Your task to perform on an android device: snooze an email in the gmail app Image 0: 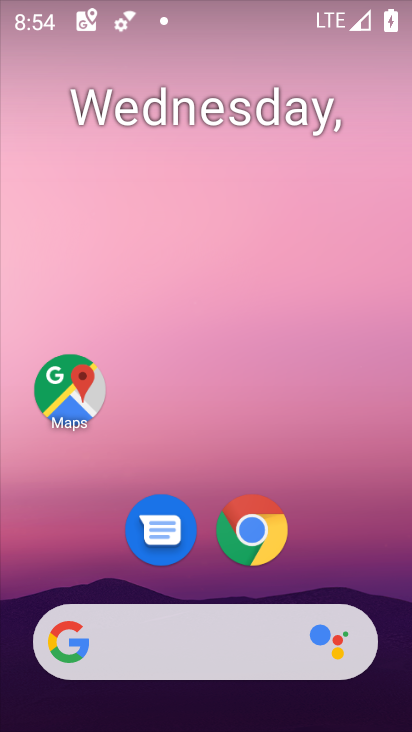
Step 0: drag from (384, 632) to (346, 274)
Your task to perform on an android device: snooze an email in the gmail app Image 1: 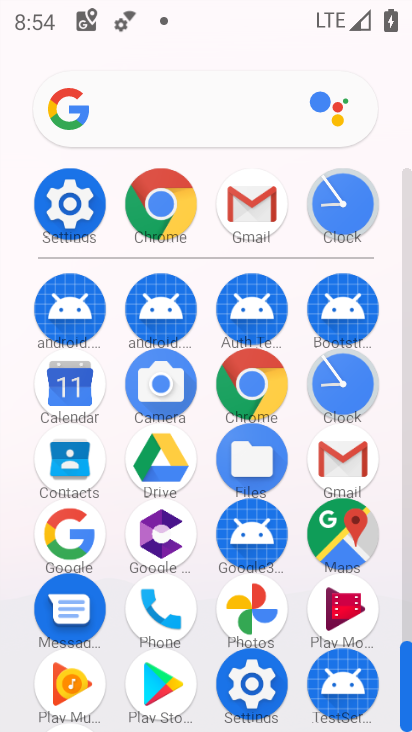
Step 1: click (342, 477)
Your task to perform on an android device: snooze an email in the gmail app Image 2: 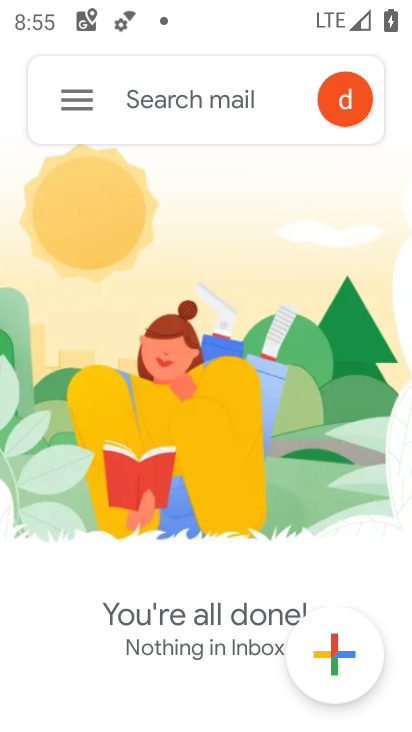
Step 2: click (74, 102)
Your task to perform on an android device: snooze an email in the gmail app Image 3: 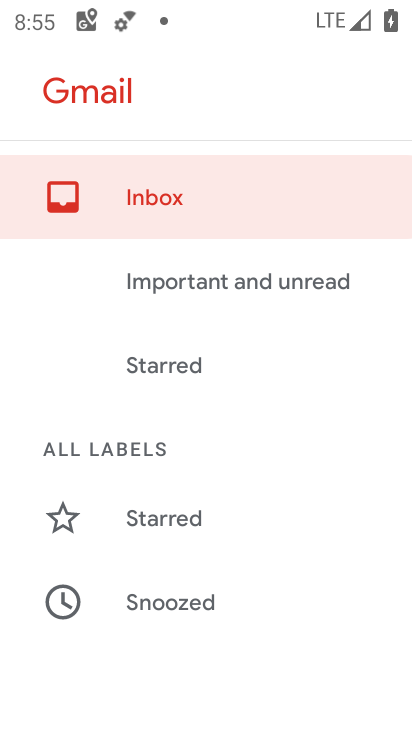
Step 3: click (181, 199)
Your task to perform on an android device: snooze an email in the gmail app Image 4: 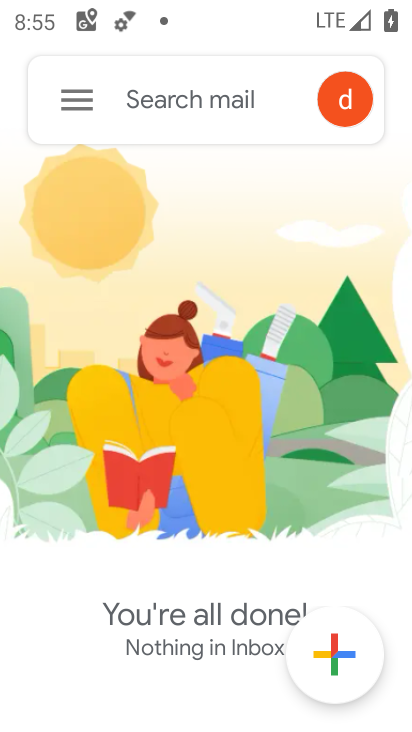
Step 4: task complete